Your task to perform on an android device: What's the weather today? Image 0: 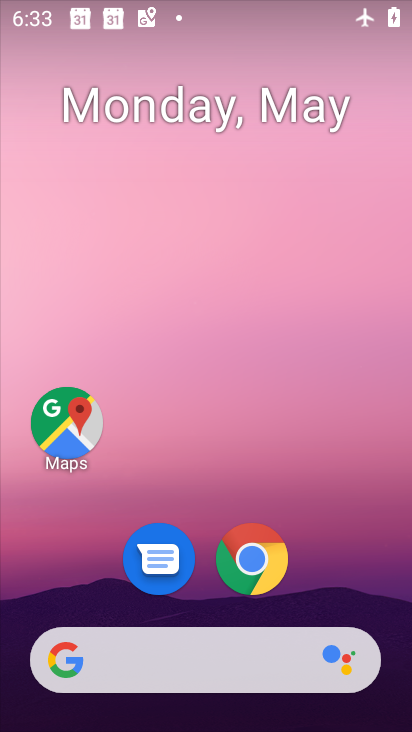
Step 0: drag from (378, 662) to (240, 119)
Your task to perform on an android device: What's the weather today? Image 1: 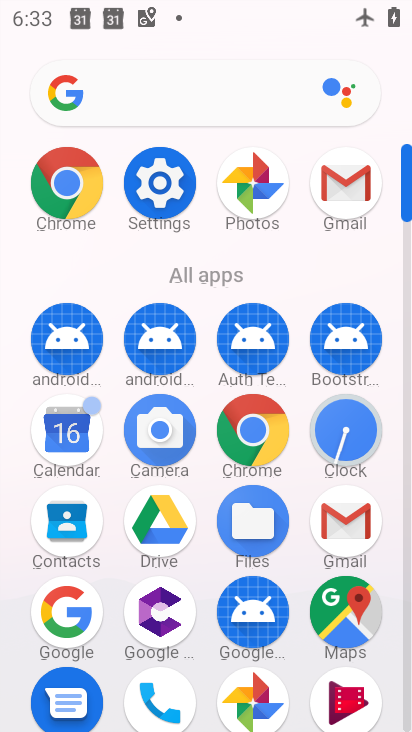
Step 1: click (80, 613)
Your task to perform on an android device: What's the weather today? Image 2: 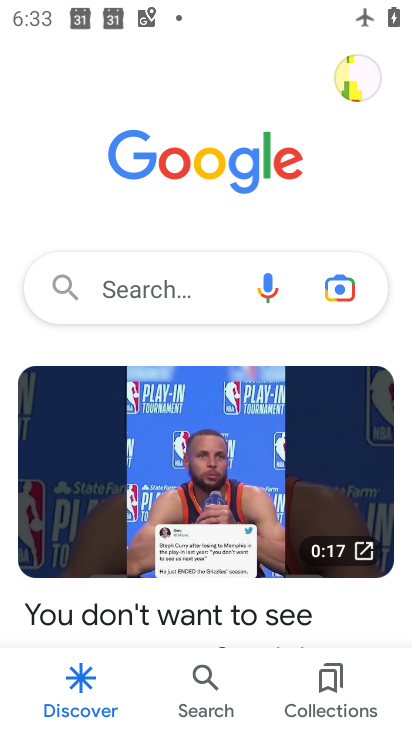
Step 2: click (146, 310)
Your task to perform on an android device: What's the weather today? Image 3: 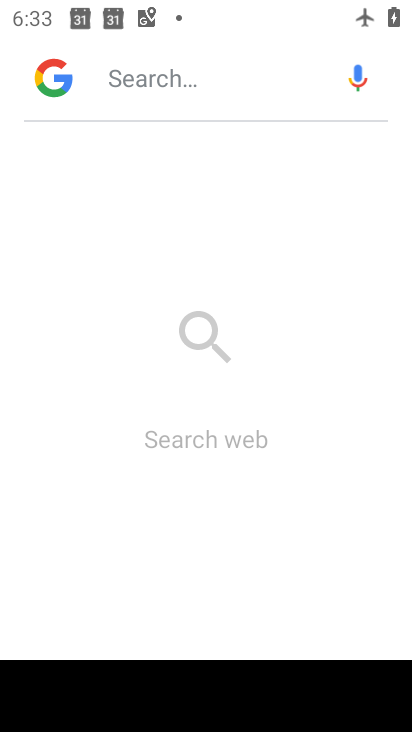
Step 3: type "wealther today?"
Your task to perform on an android device: What's the weather today? Image 4: 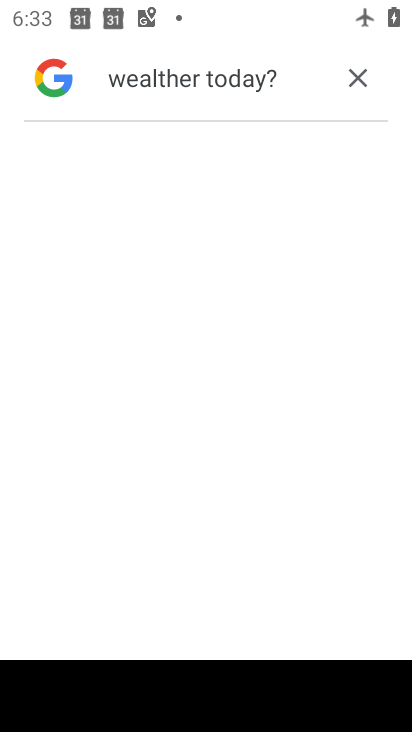
Step 4: task complete